Your task to perform on an android device: all mails in gmail Image 0: 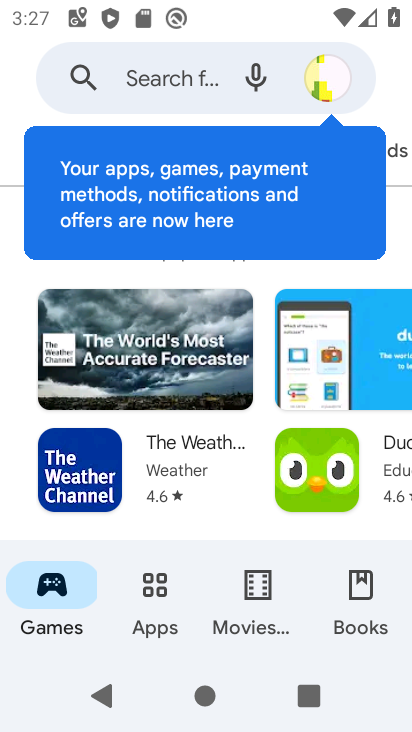
Step 0: press back button
Your task to perform on an android device: all mails in gmail Image 1: 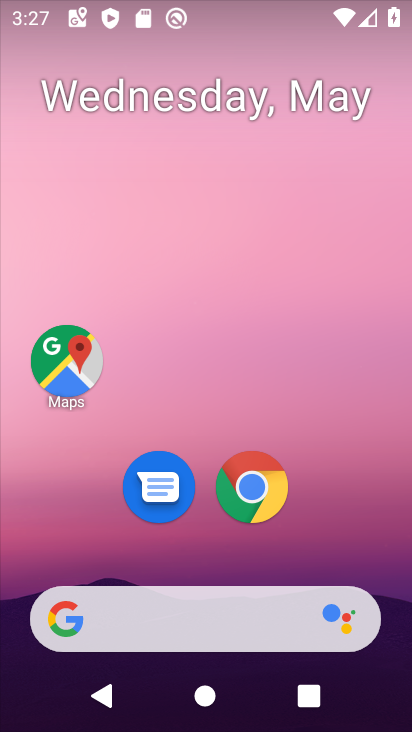
Step 1: drag from (324, 516) to (283, 11)
Your task to perform on an android device: all mails in gmail Image 2: 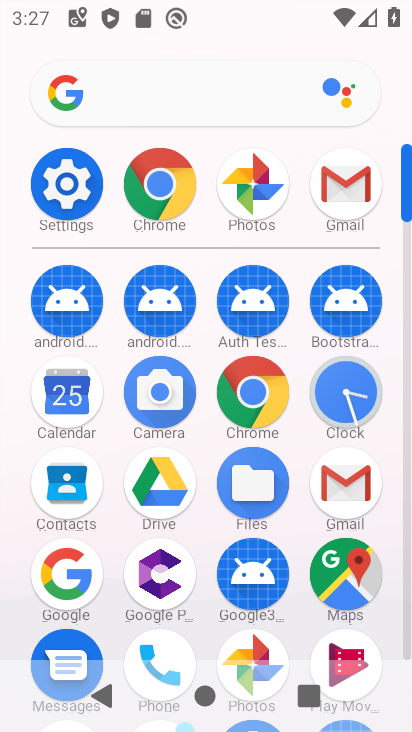
Step 2: click (345, 178)
Your task to perform on an android device: all mails in gmail Image 3: 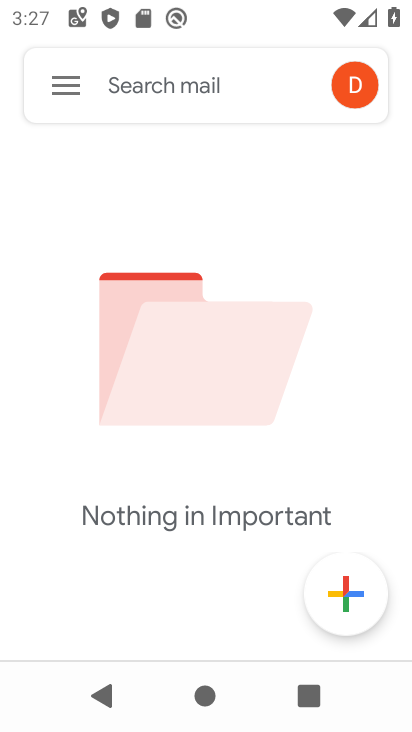
Step 3: click (57, 82)
Your task to perform on an android device: all mails in gmail Image 4: 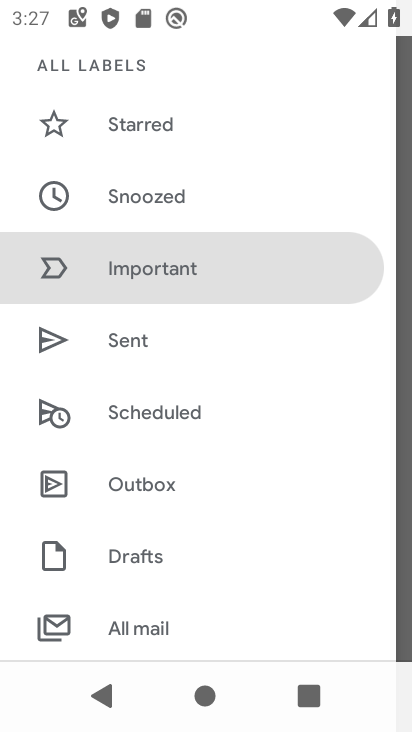
Step 4: drag from (232, 181) to (217, 586)
Your task to perform on an android device: all mails in gmail Image 5: 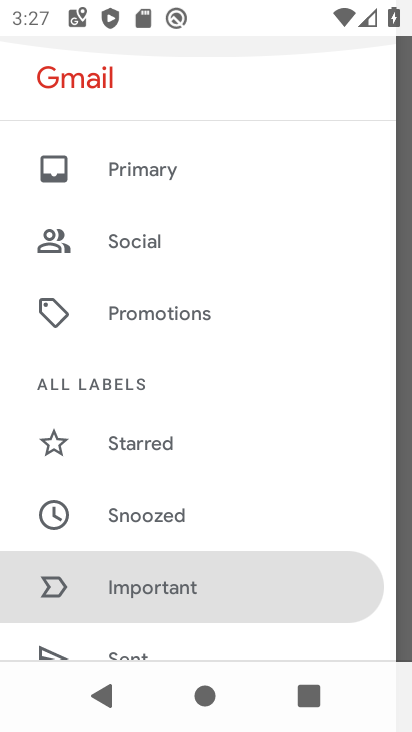
Step 5: drag from (218, 586) to (248, 122)
Your task to perform on an android device: all mails in gmail Image 6: 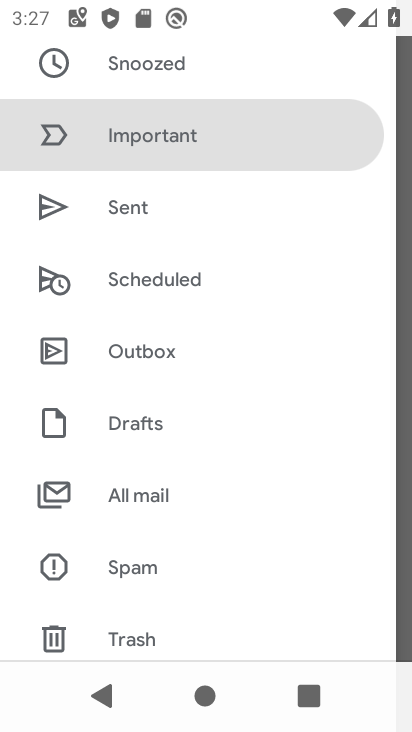
Step 6: click (153, 485)
Your task to perform on an android device: all mails in gmail Image 7: 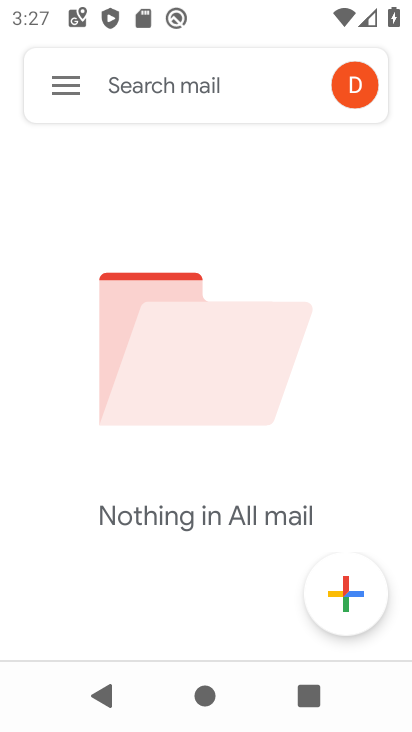
Step 7: task complete